Your task to perform on an android device: set the stopwatch Image 0: 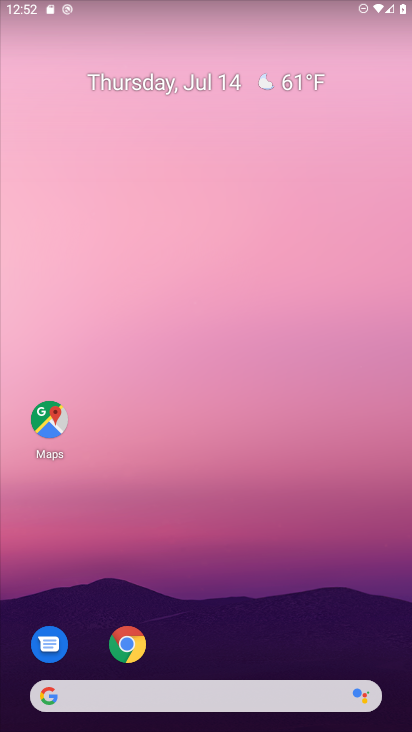
Step 0: drag from (224, 434) to (247, 152)
Your task to perform on an android device: set the stopwatch Image 1: 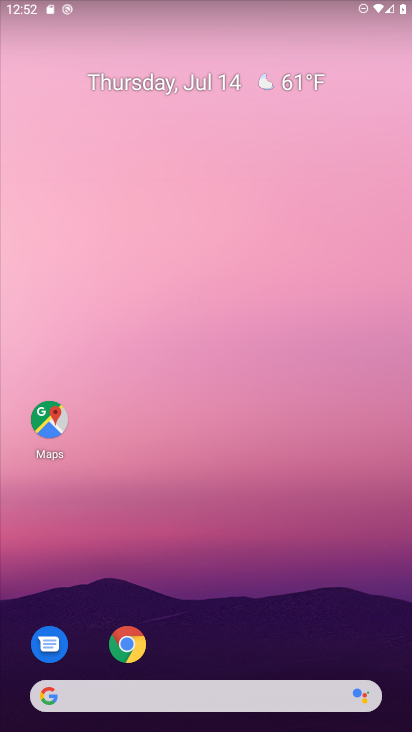
Step 1: drag from (273, 576) to (322, 18)
Your task to perform on an android device: set the stopwatch Image 2: 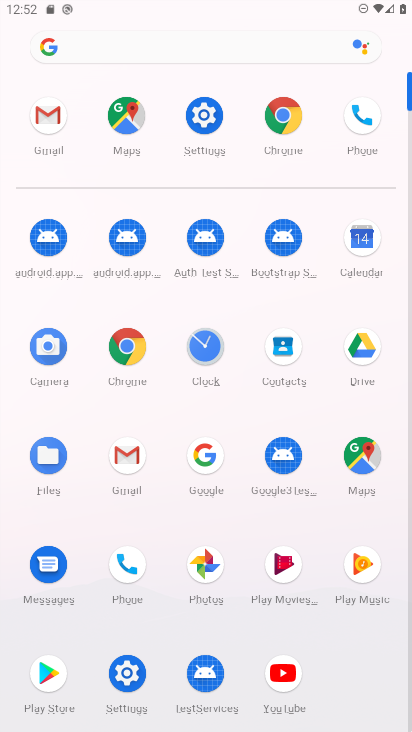
Step 2: click (204, 347)
Your task to perform on an android device: set the stopwatch Image 3: 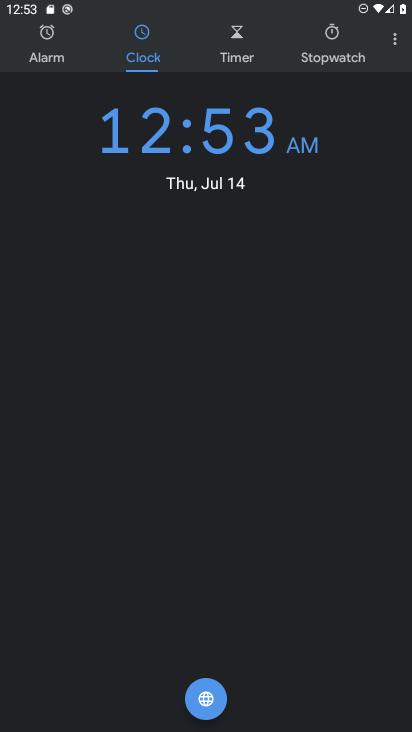
Step 3: click (327, 55)
Your task to perform on an android device: set the stopwatch Image 4: 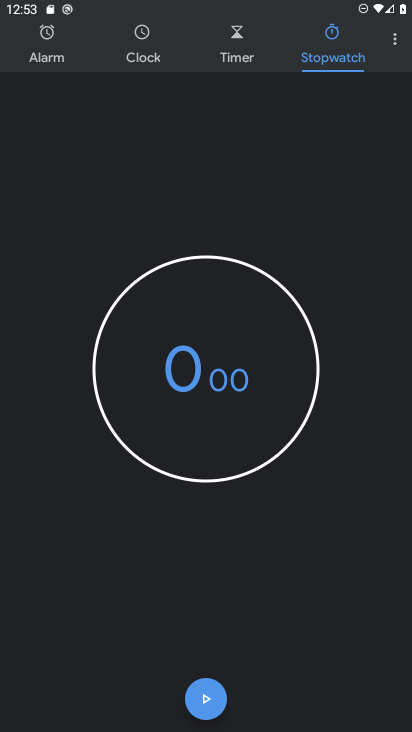
Step 4: click (208, 694)
Your task to perform on an android device: set the stopwatch Image 5: 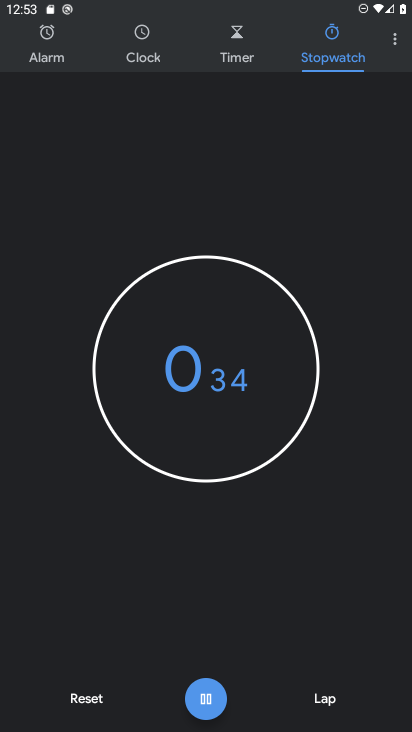
Step 5: click (208, 693)
Your task to perform on an android device: set the stopwatch Image 6: 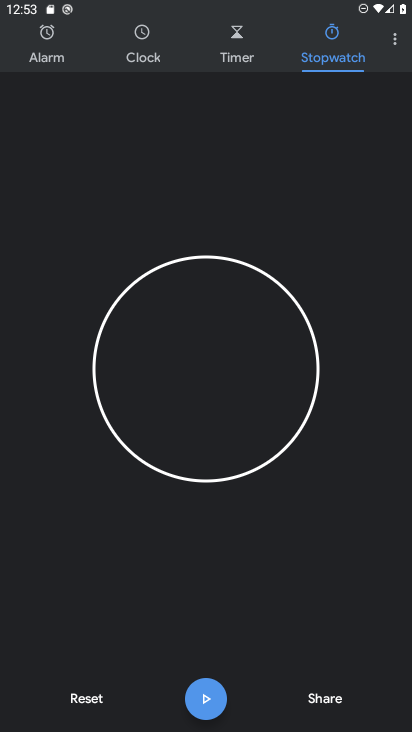
Step 6: task complete